Your task to perform on an android device: toggle javascript in the chrome app Image 0: 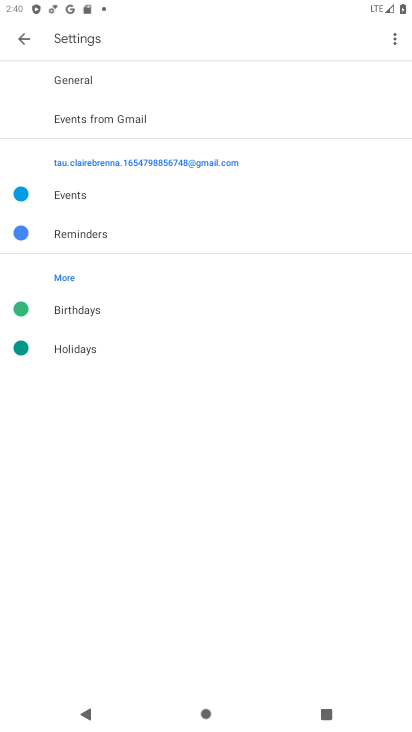
Step 0: press home button
Your task to perform on an android device: toggle javascript in the chrome app Image 1: 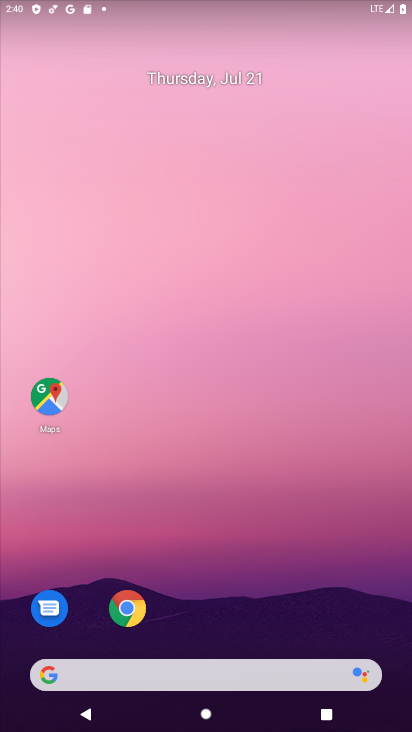
Step 1: drag from (193, 518) to (165, 67)
Your task to perform on an android device: toggle javascript in the chrome app Image 2: 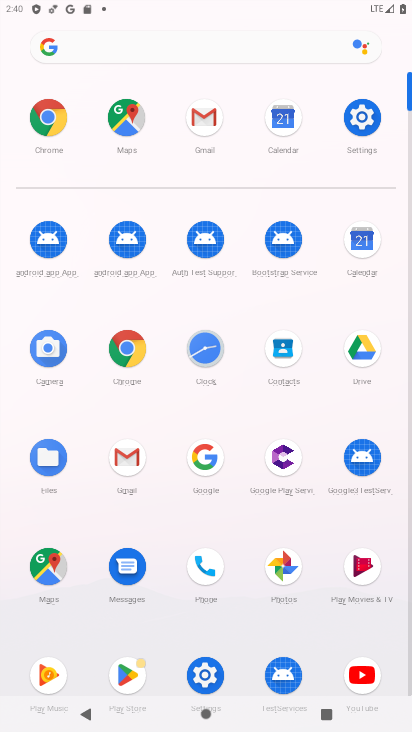
Step 2: click (118, 356)
Your task to perform on an android device: toggle javascript in the chrome app Image 3: 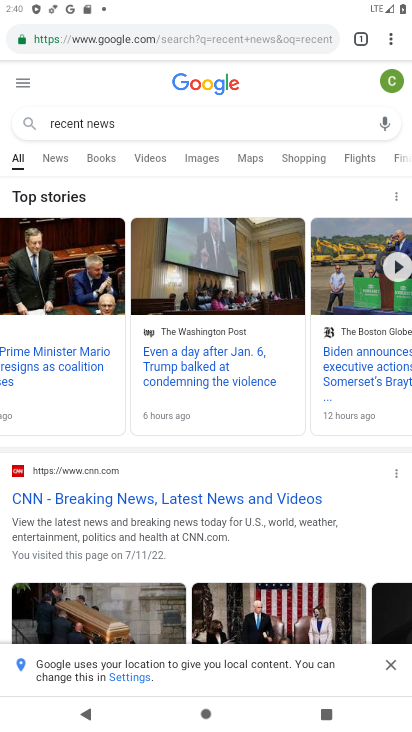
Step 3: drag from (388, 41) to (263, 472)
Your task to perform on an android device: toggle javascript in the chrome app Image 4: 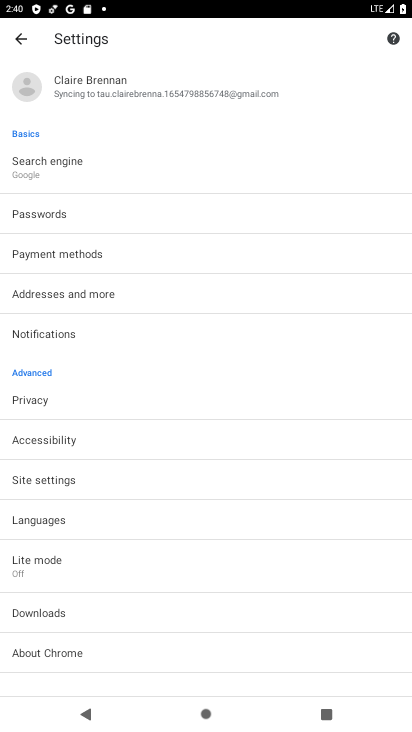
Step 4: click (61, 484)
Your task to perform on an android device: toggle javascript in the chrome app Image 5: 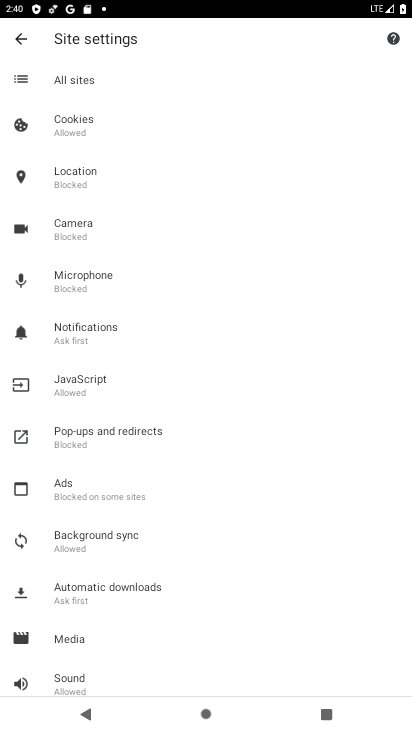
Step 5: click (80, 378)
Your task to perform on an android device: toggle javascript in the chrome app Image 6: 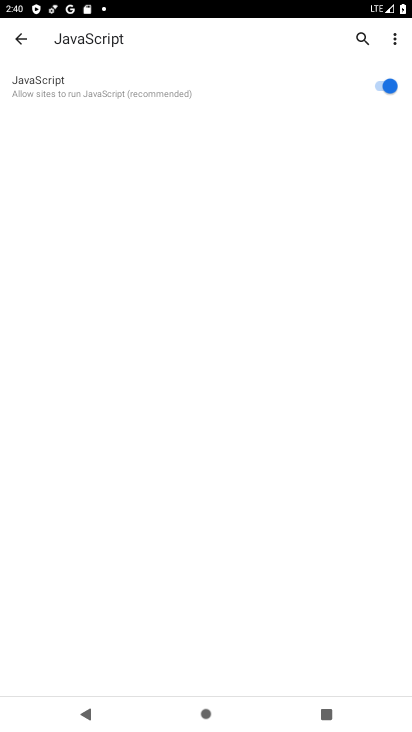
Step 6: click (380, 84)
Your task to perform on an android device: toggle javascript in the chrome app Image 7: 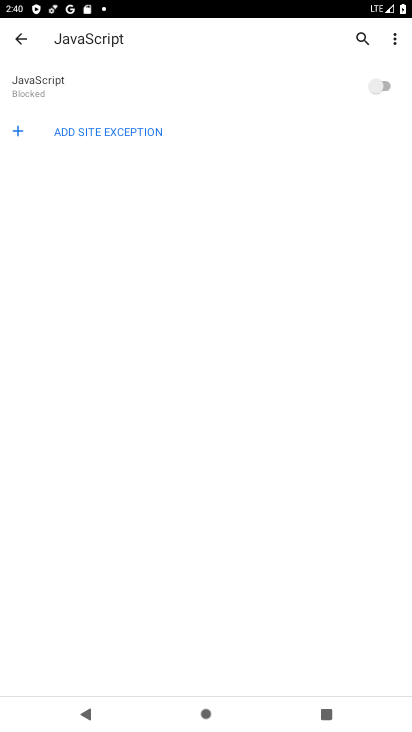
Step 7: task complete